Your task to perform on an android device: Add "rayovac triple a" to the cart on ebay, then select checkout. Image 0: 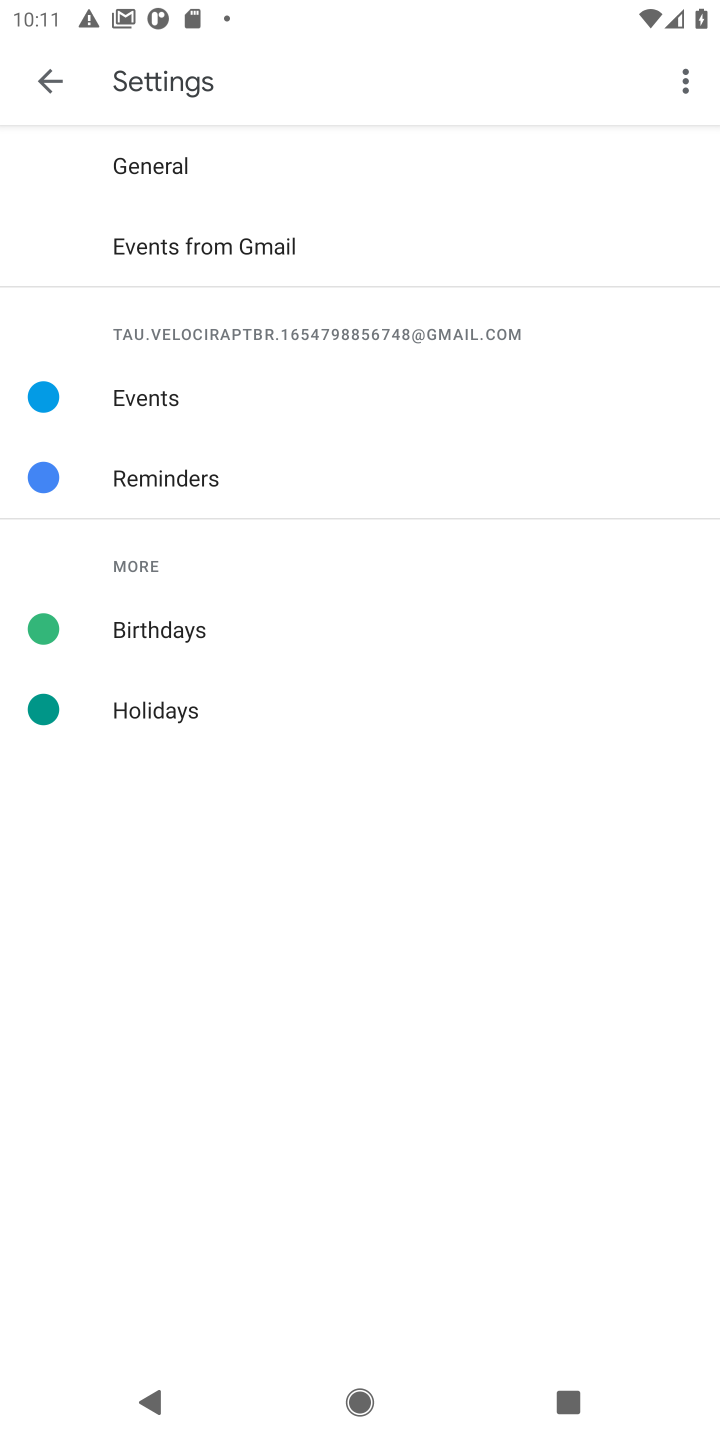
Step 0: press home button
Your task to perform on an android device: Add "rayovac triple a" to the cart on ebay, then select checkout. Image 1: 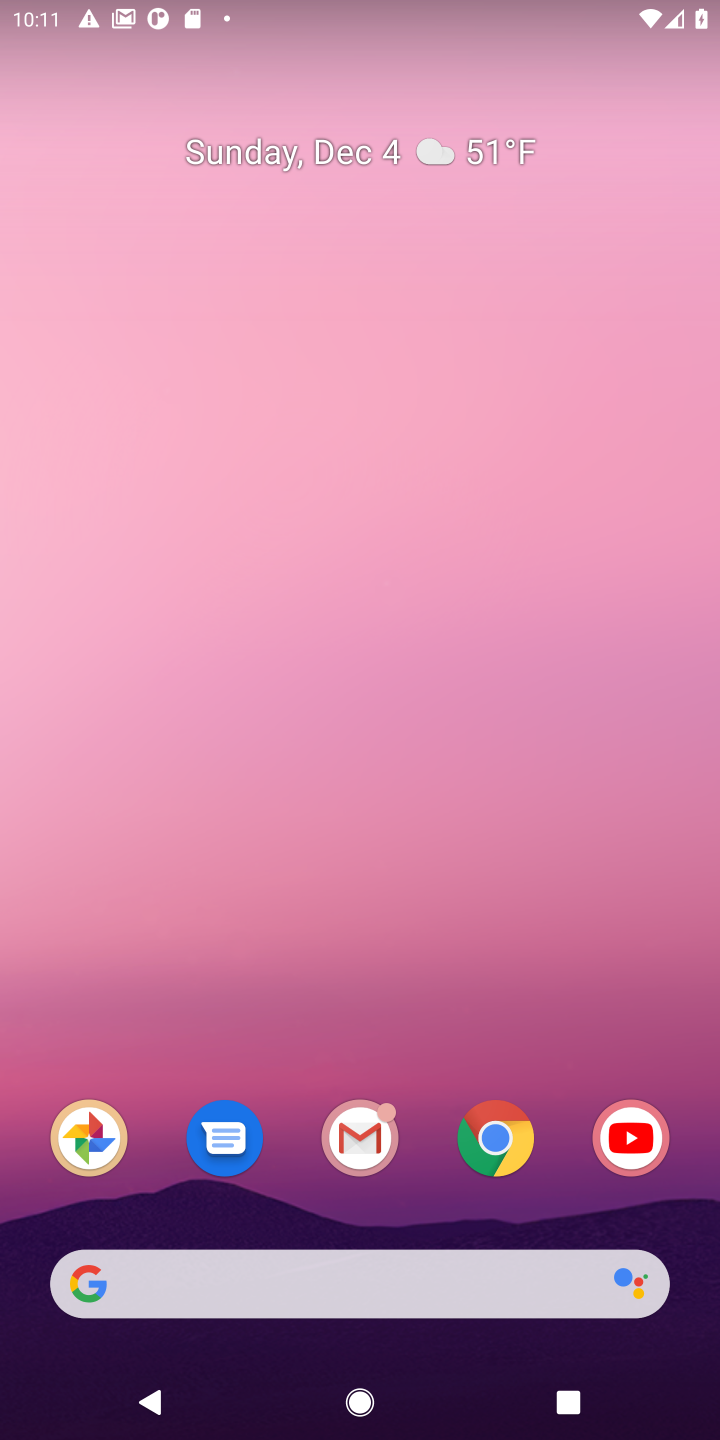
Step 1: click (488, 1128)
Your task to perform on an android device: Add "rayovac triple a" to the cart on ebay, then select checkout. Image 2: 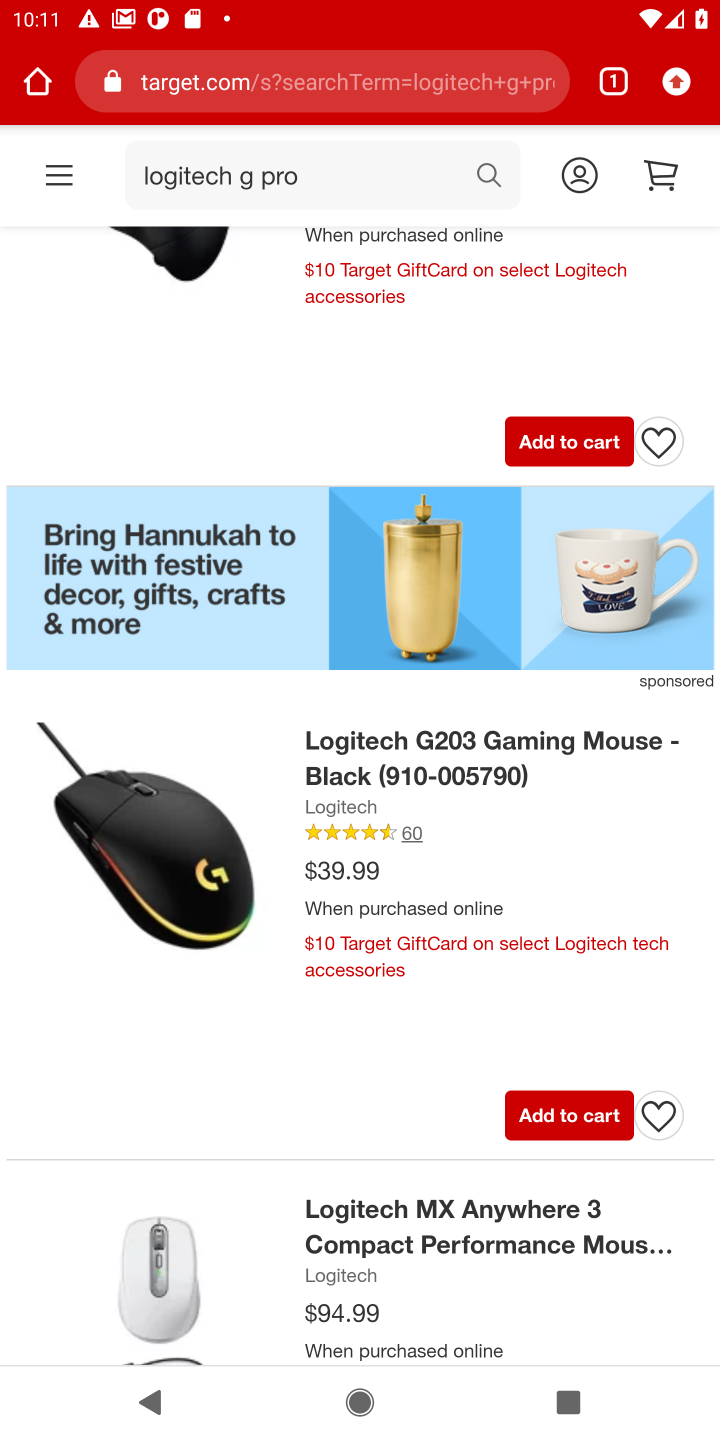
Step 2: click (455, 93)
Your task to perform on an android device: Add "rayovac triple a" to the cart on ebay, then select checkout. Image 3: 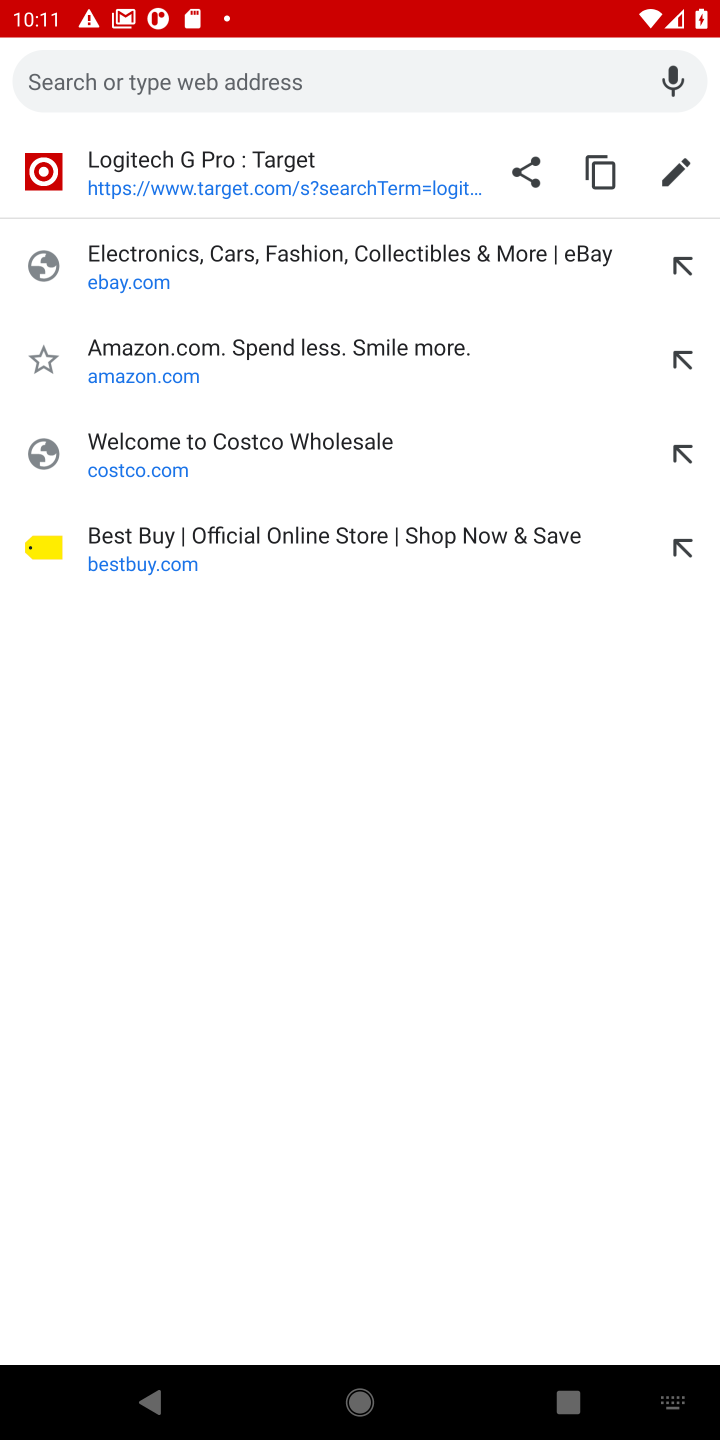
Step 3: click (245, 248)
Your task to perform on an android device: Add "rayovac triple a" to the cart on ebay, then select checkout. Image 4: 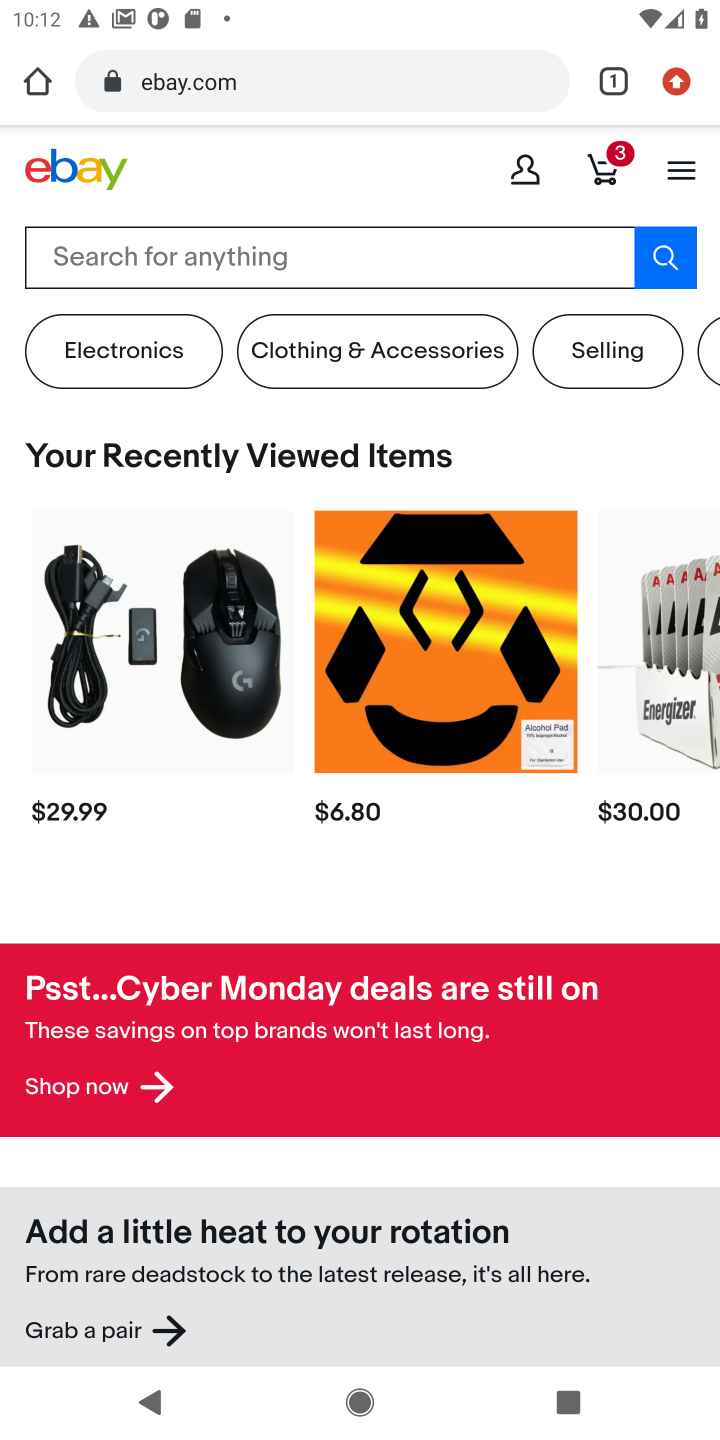
Step 4: click (332, 258)
Your task to perform on an android device: Add "rayovac triple a" to the cart on ebay, then select checkout. Image 5: 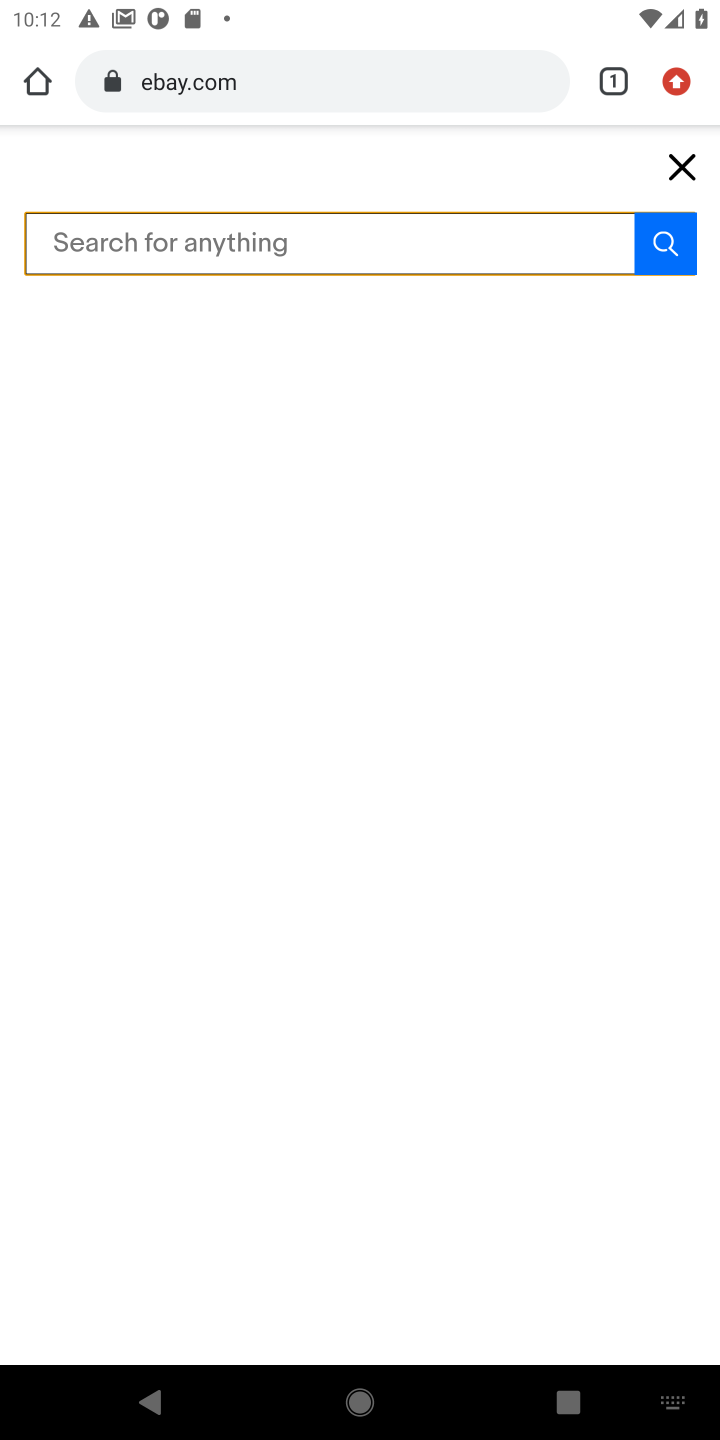
Step 5: type "rayovac triple a"
Your task to perform on an android device: Add "rayovac triple a" to the cart on ebay, then select checkout. Image 6: 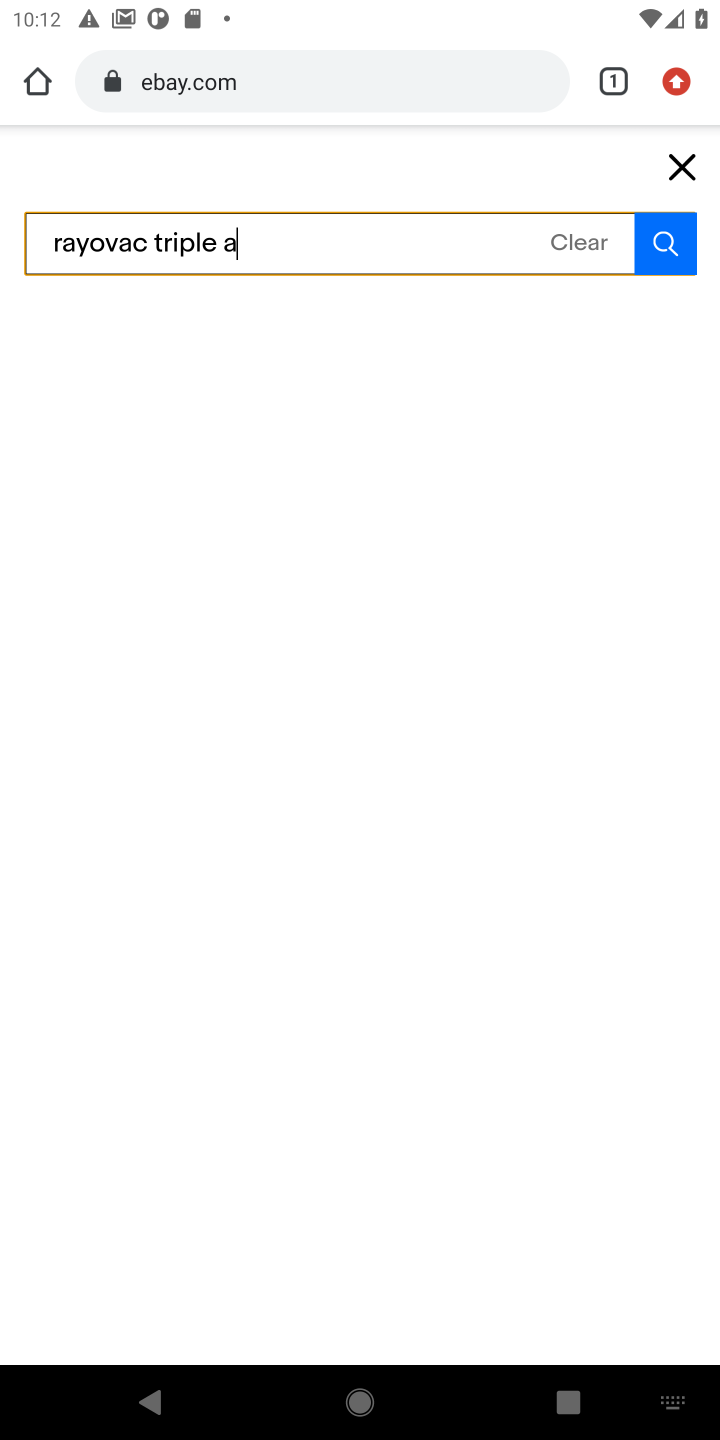
Step 6: press enter
Your task to perform on an android device: Add "rayovac triple a" to the cart on ebay, then select checkout. Image 7: 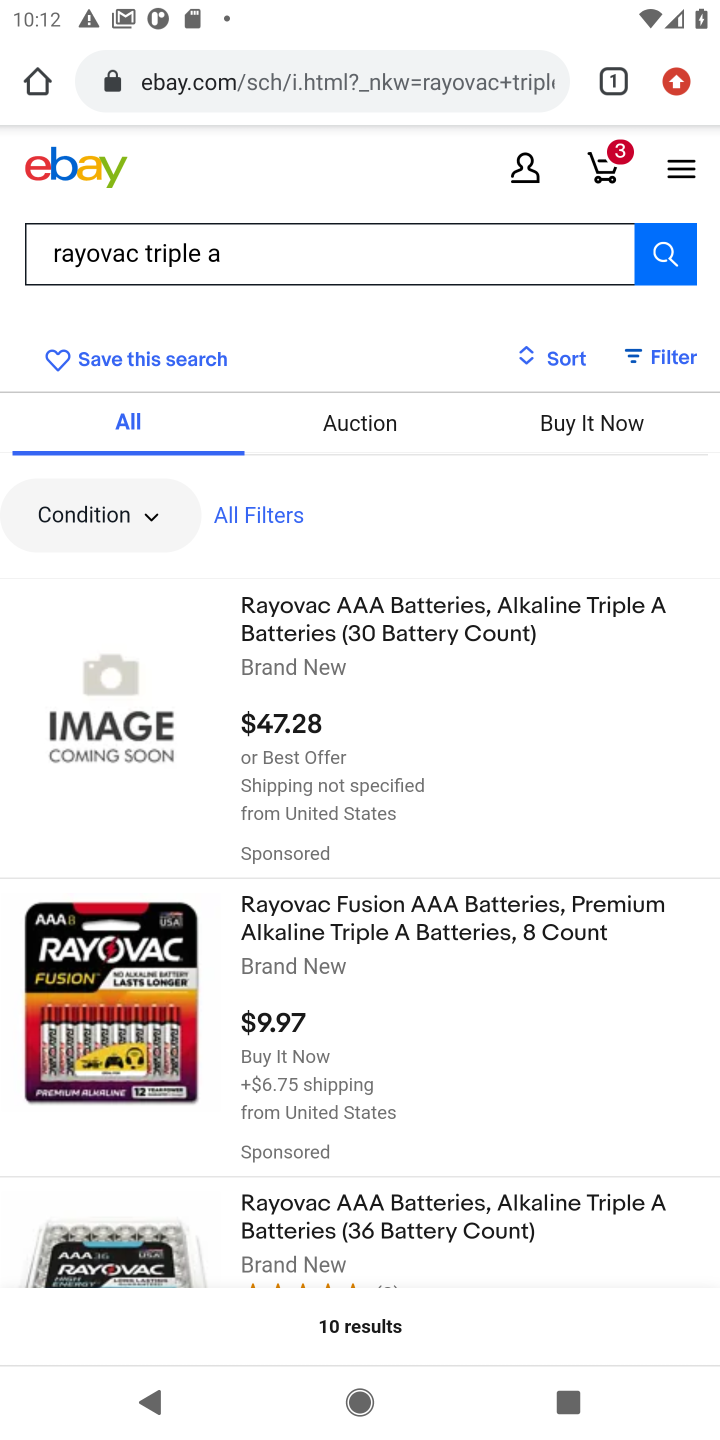
Step 7: click (107, 1016)
Your task to perform on an android device: Add "rayovac triple a" to the cart on ebay, then select checkout. Image 8: 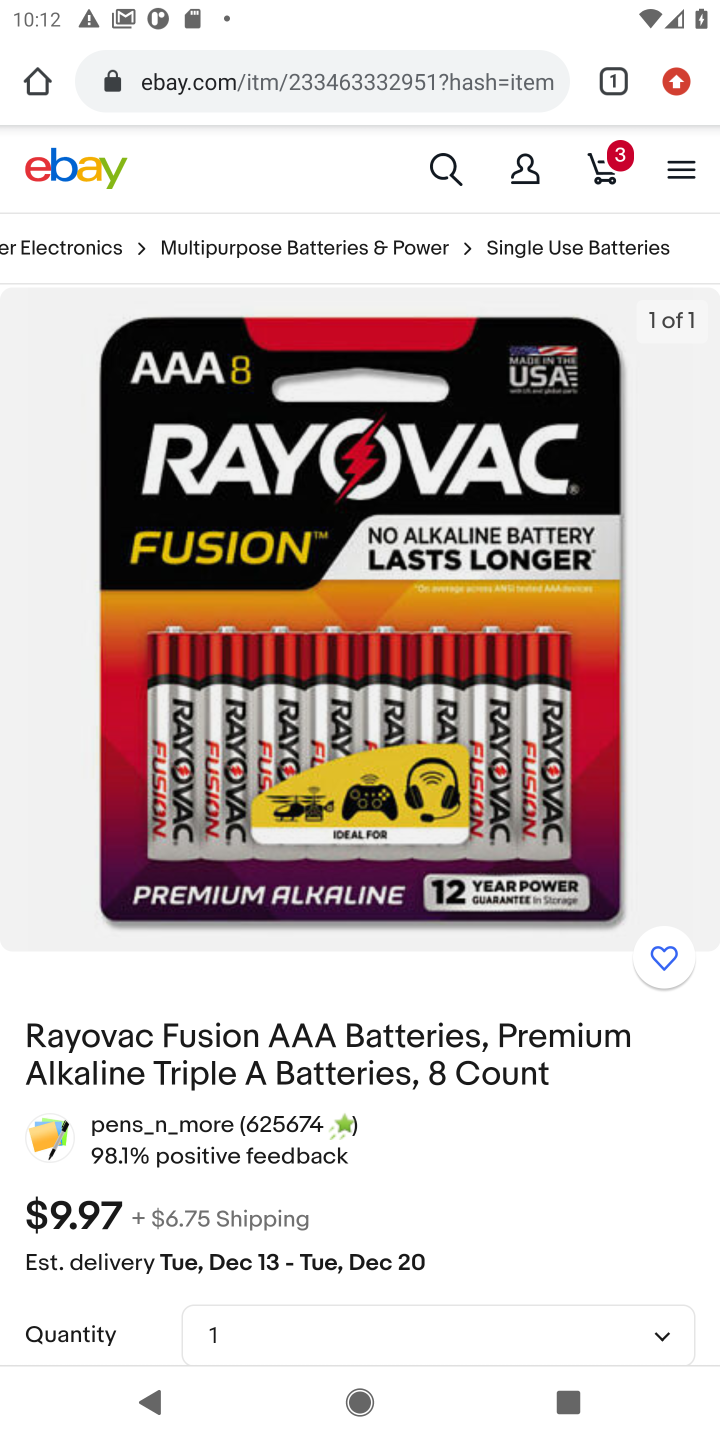
Step 8: drag from (542, 1177) to (544, 606)
Your task to perform on an android device: Add "rayovac triple a" to the cart on ebay, then select checkout. Image 9: 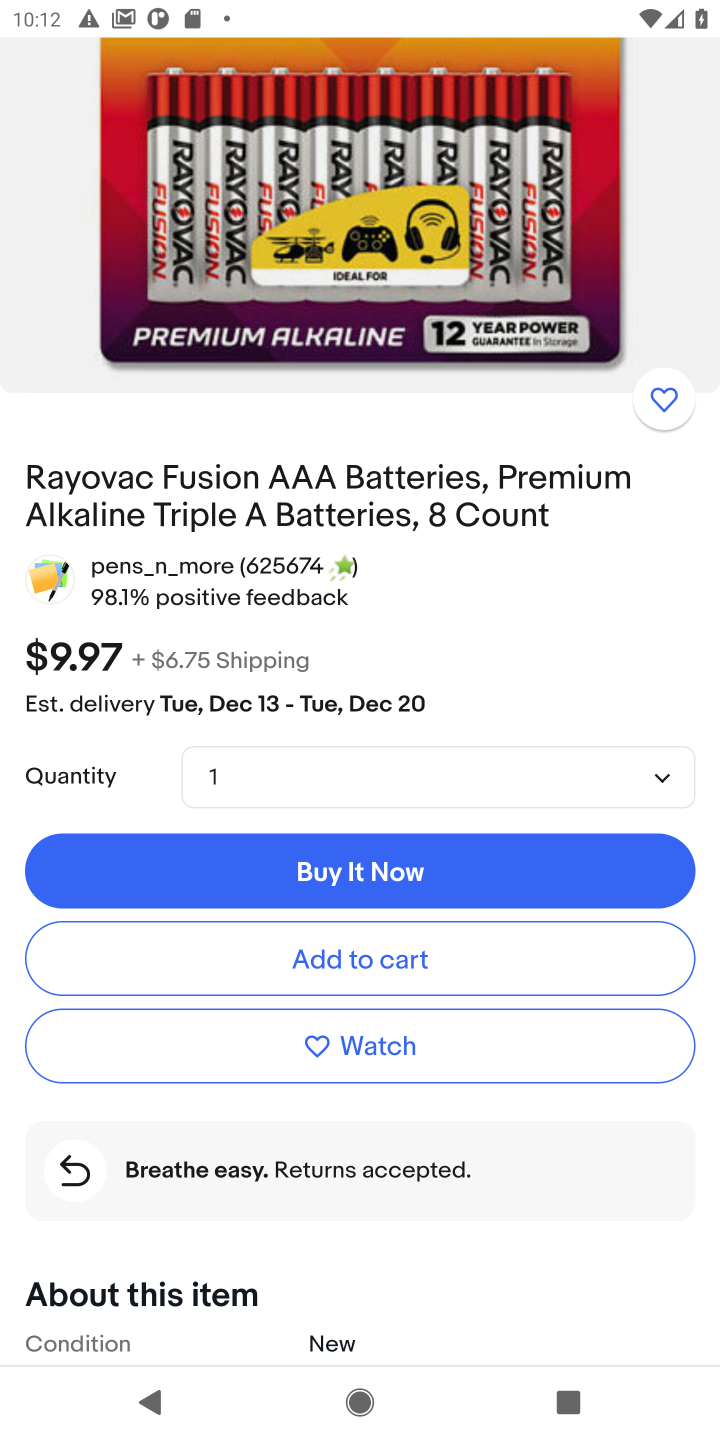
Step 9: click (365, 958)
Your task to perform on an android device: Add "rayovac triple a" to the cart on ebay, then select checkout. Image 10: 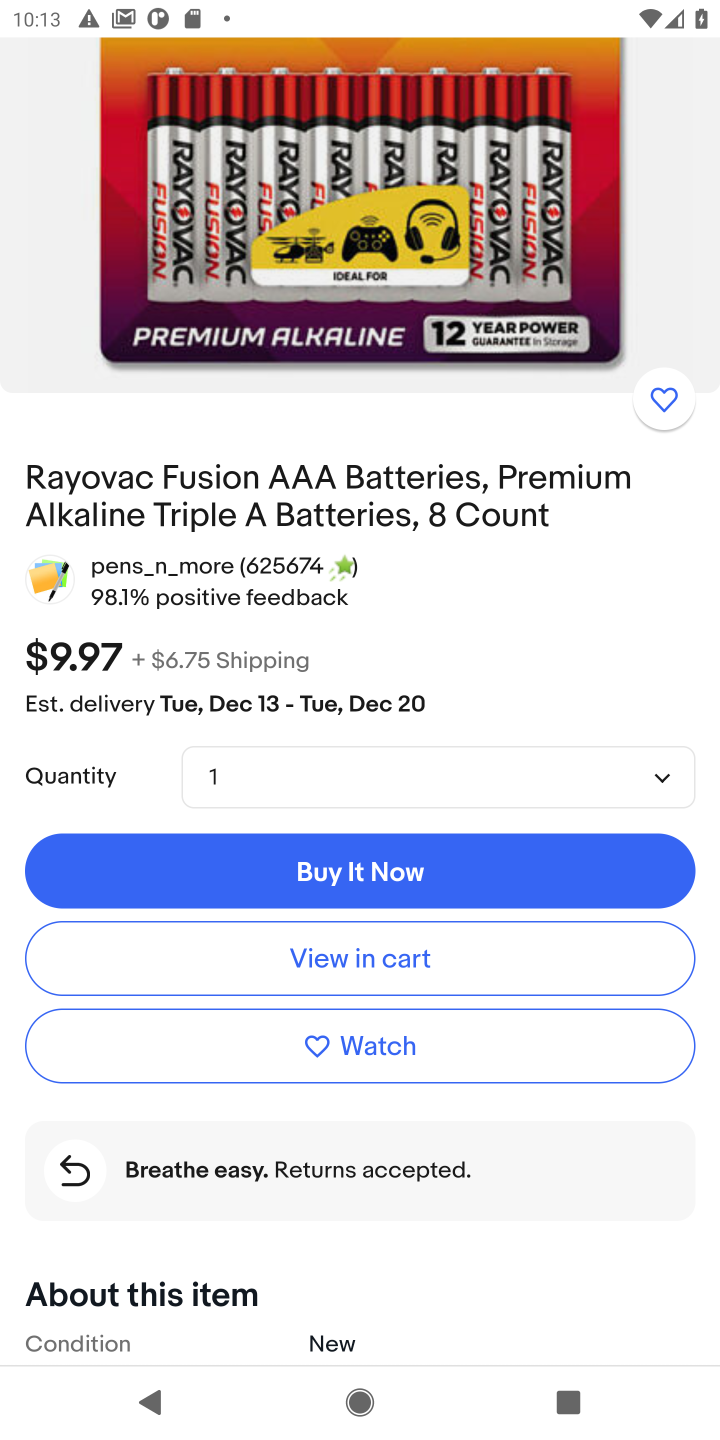
Step 10: click (365, 958)
Your task to perform on an android device: Add "rayovac triple a" to the cart on ebay, then select checkout. Image 11: 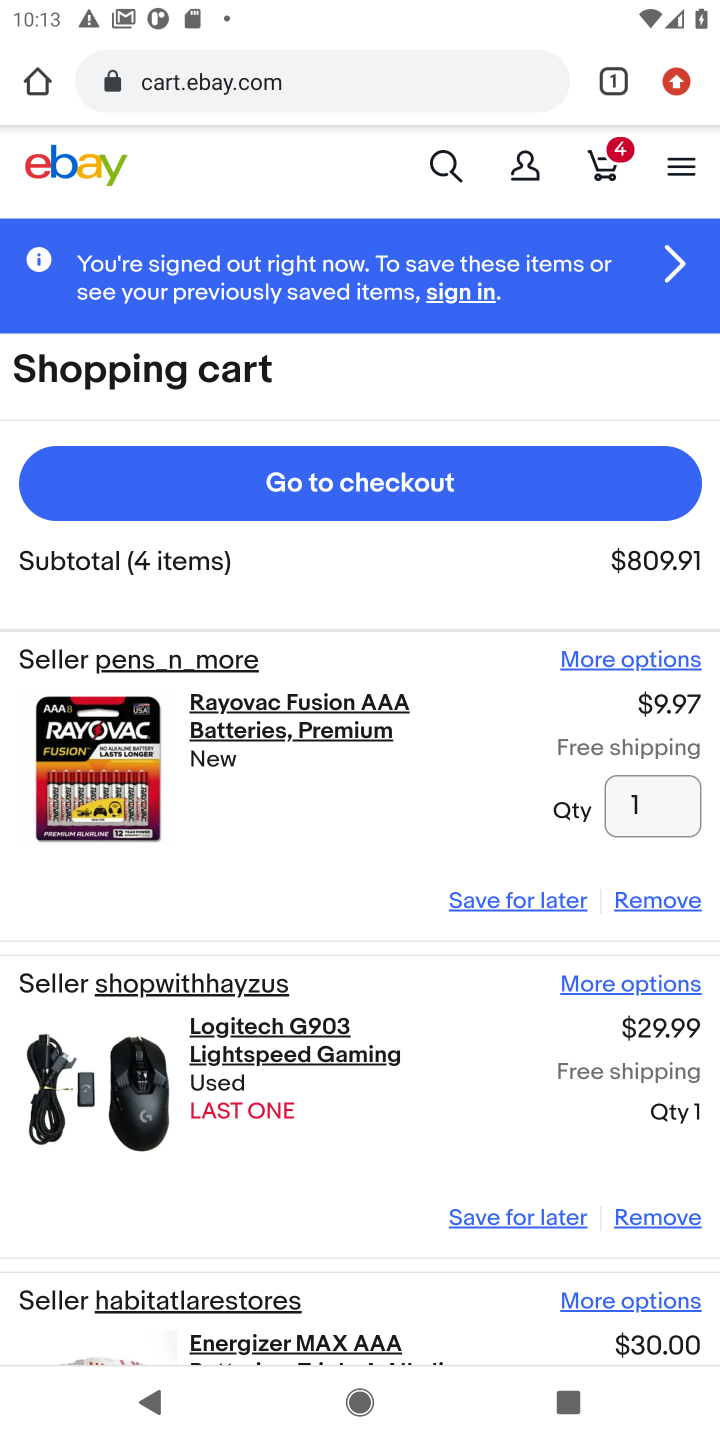
Step 11: click (407, 488)
Your task to perform on an android device: Add "rayovac triple a" to the cart on ebay, then select checkout. Image 12: 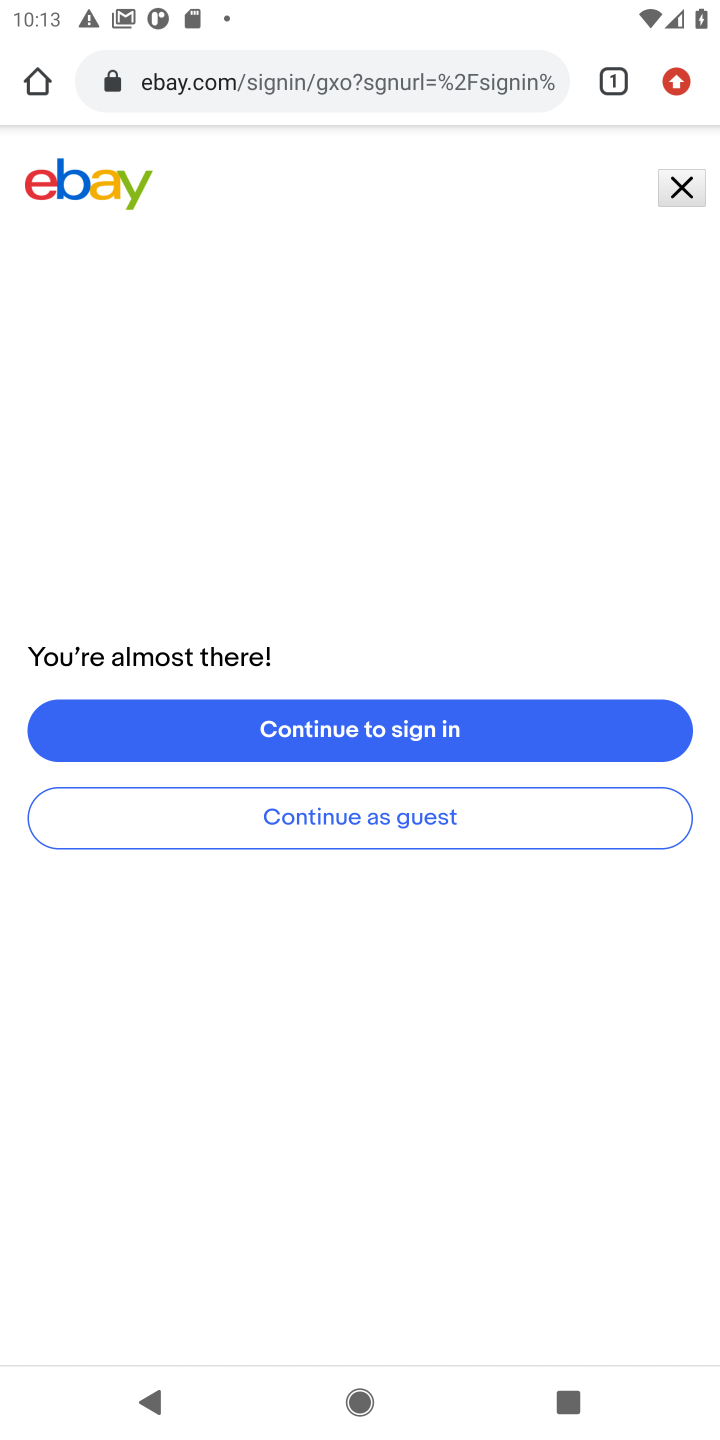
Step 12: task complete